Your task to perform on an android device: make emails show in primary in the gmail app Image 0: 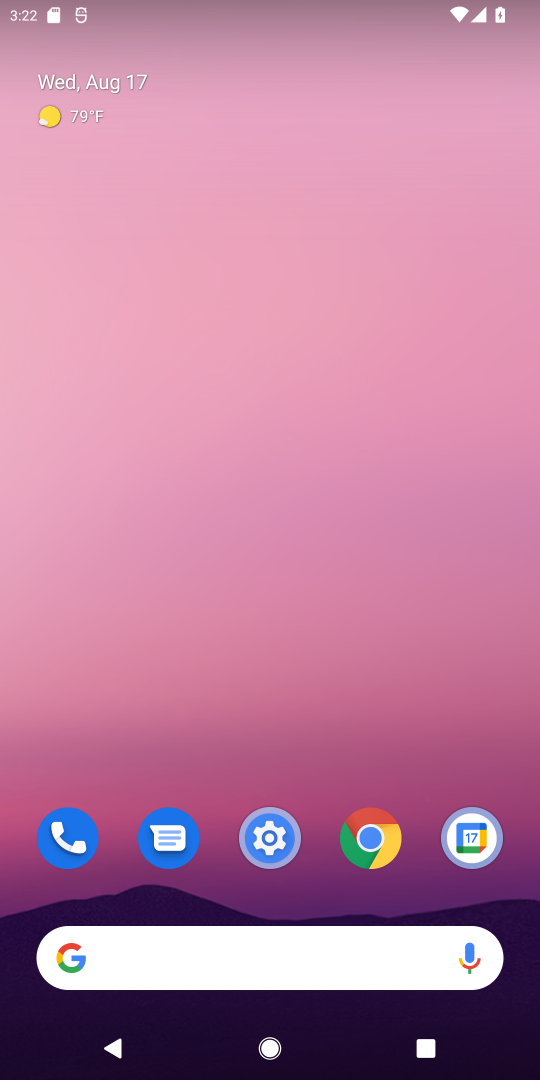
Step 0: drag from (231, 916) to (238, 435)
Your task to perform on an android device: make emails show in primary in the gmail app Image 1: 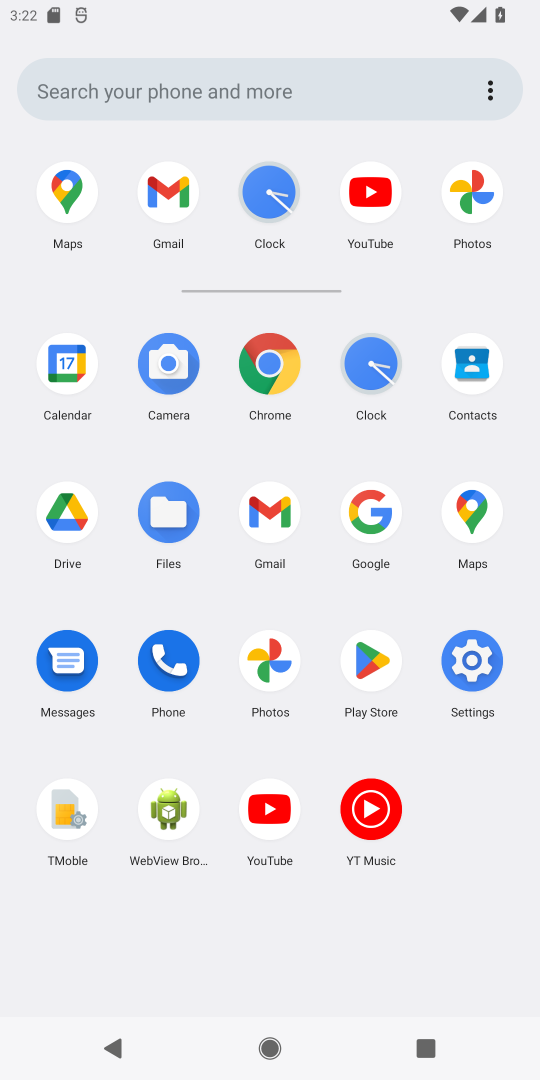
Step 1: click (182, 204)
Your task to perform on an android device: make emails show in primary in the gmail app Image 2: 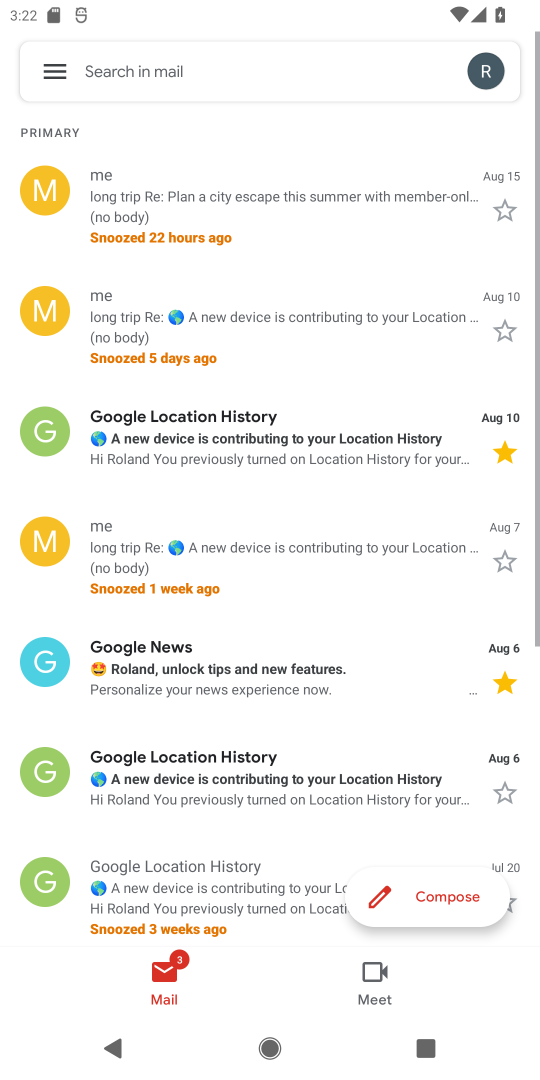
Step 2: click (45, 70)
Your task to perform on an android device: make emails show in primary in the gmail app Image 3: 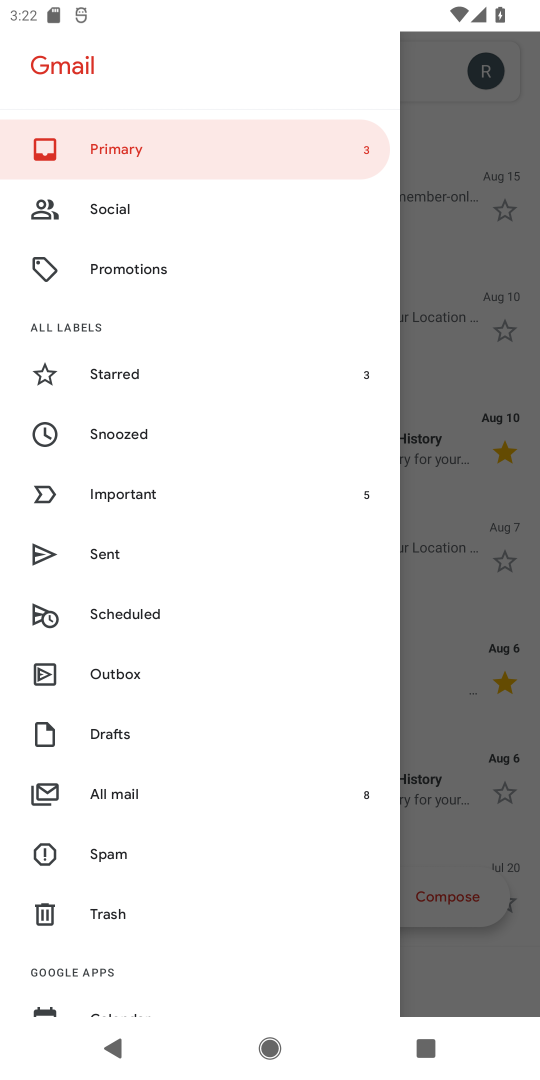
Step 3: drag from (122, 925) to (122, 230)
Your task to perform on an android device: make emails show in primary in the gmail app Image 4: 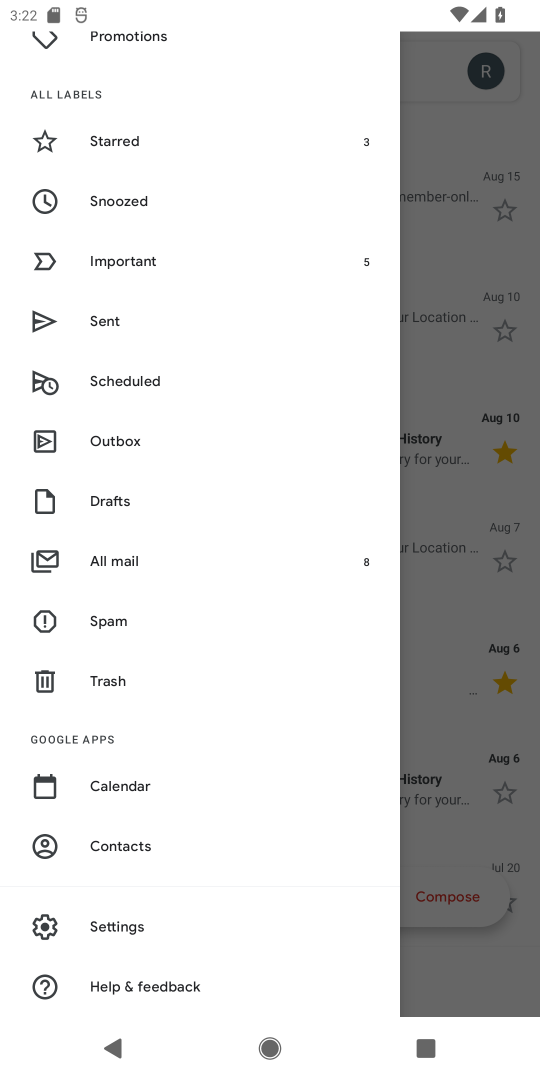
Step 4: click (85, 921)
Your task to perform on an android device: make emails show in primary in the gmail app Image 5: 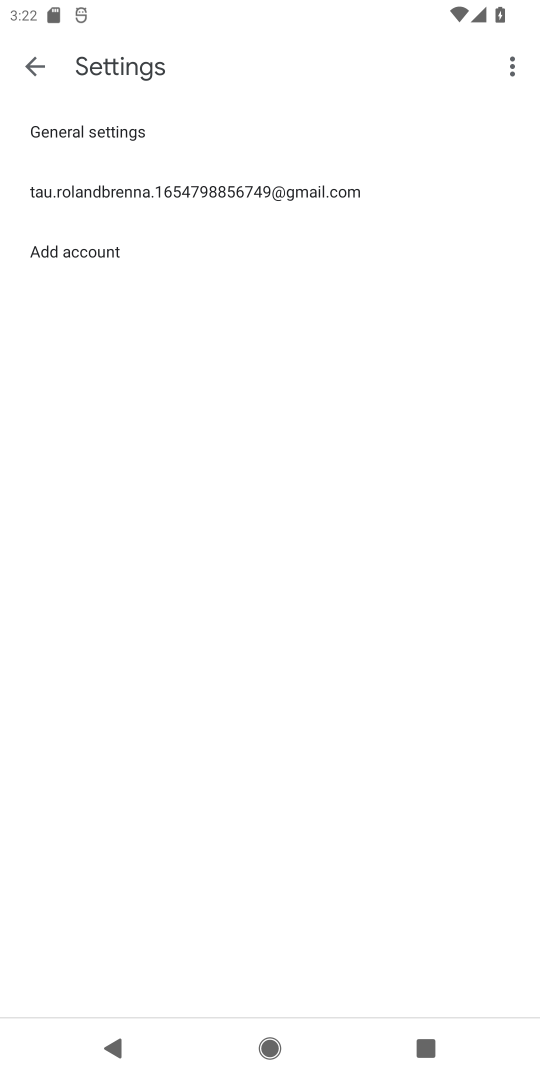
Step 5: click (115, 188)
Your task to perform on an android device: make emails show in primary in the gmail app Image 6: 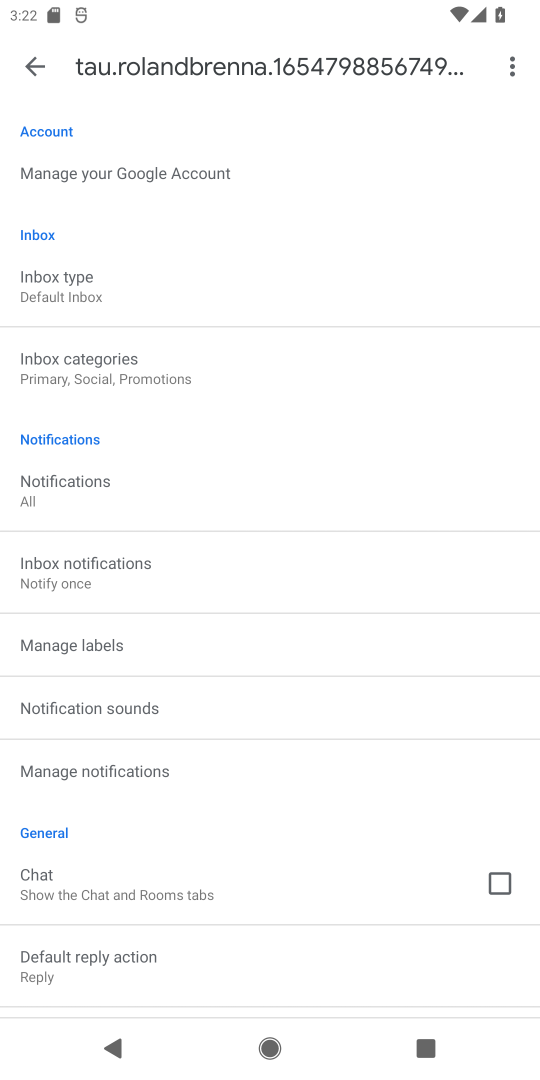
Step 6: click (37, 289)
Your task to perform on an android device: make emails show in primary in the gmail app Image 7: 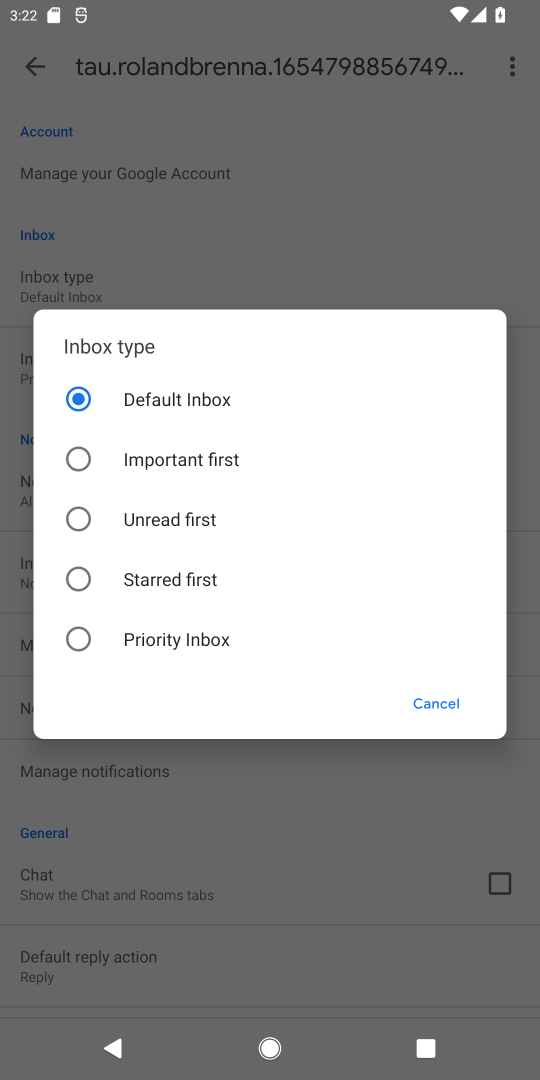
Step 7: click (98, 408)
Your task to perform on an android device: make emails show in primary in the gmail app Image 8: 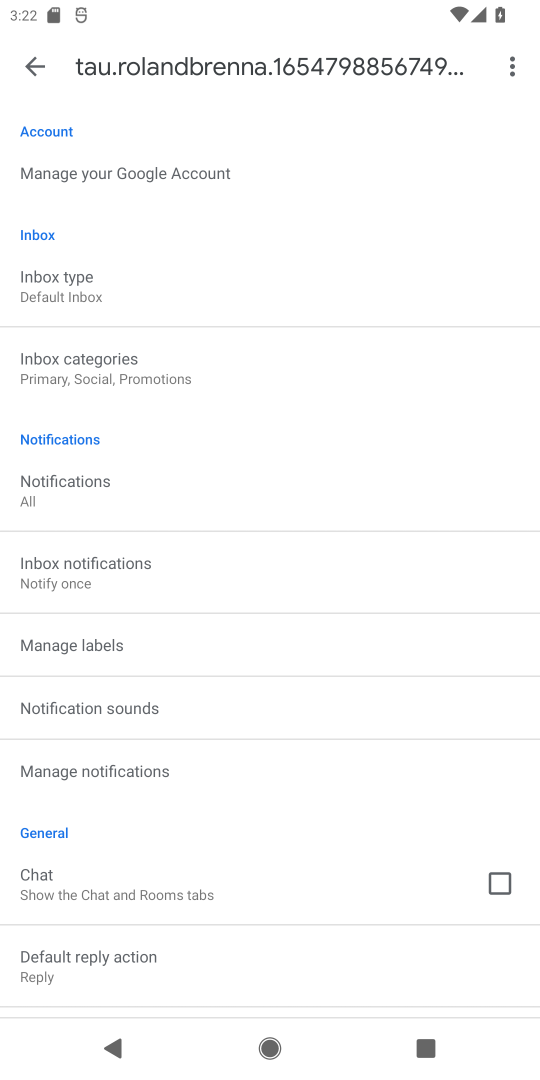
Step 8: click (84, 374)
Your task to perform on an android device: make emails show in primary in the gmail app Image 9: 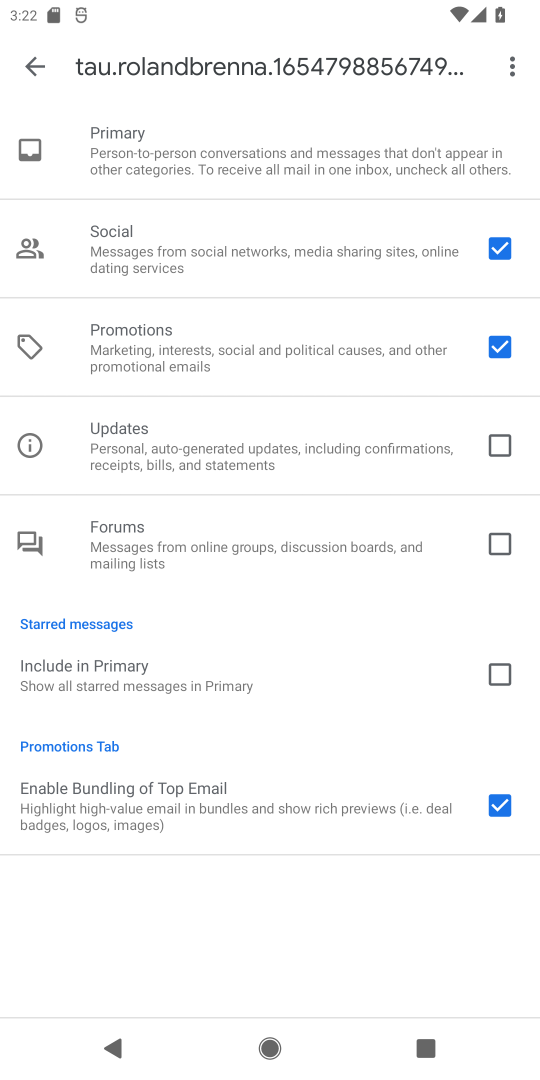
Step 9: click (498, 351)
Your task to perform on an android device: make emails show in primary in the gmail app Image 10: 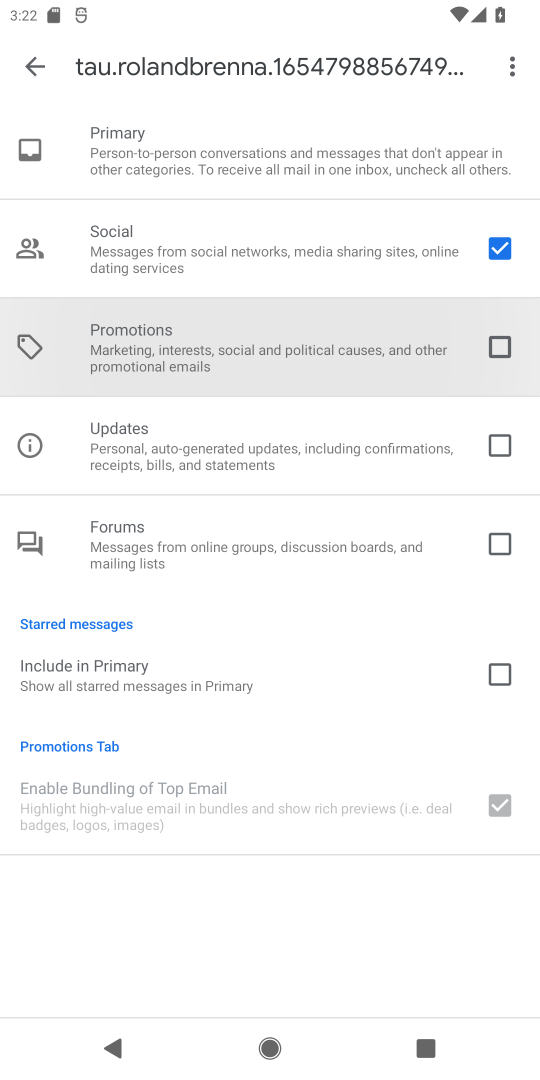
Step 10: click (499, 241)
Your task to perform on an android device: make emails show in primary in the gmail app Image 11: 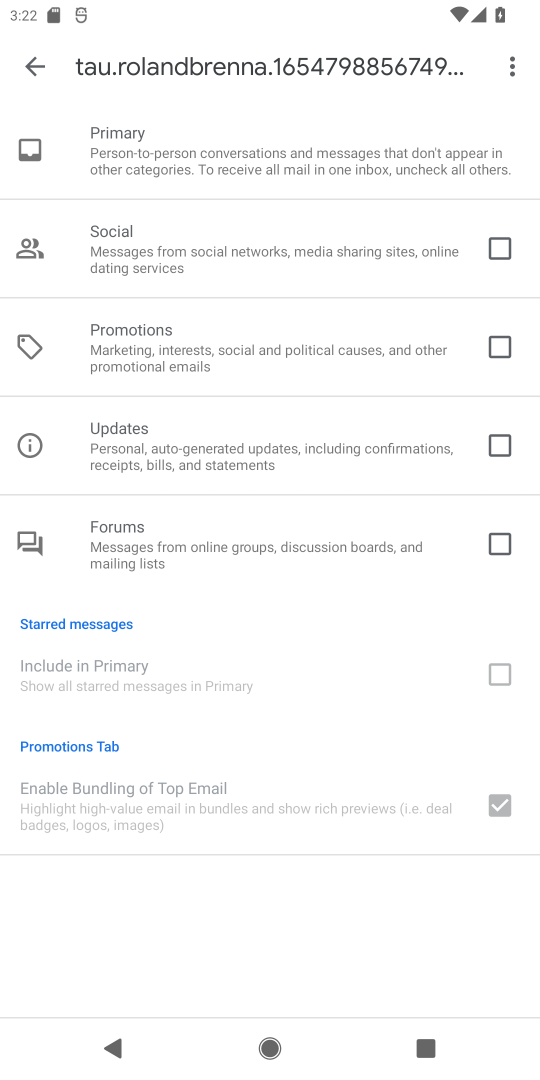
Step 11: click (29, 66)
Your task to perform on an android device: make emails show in primary in the gmail app Image 12: 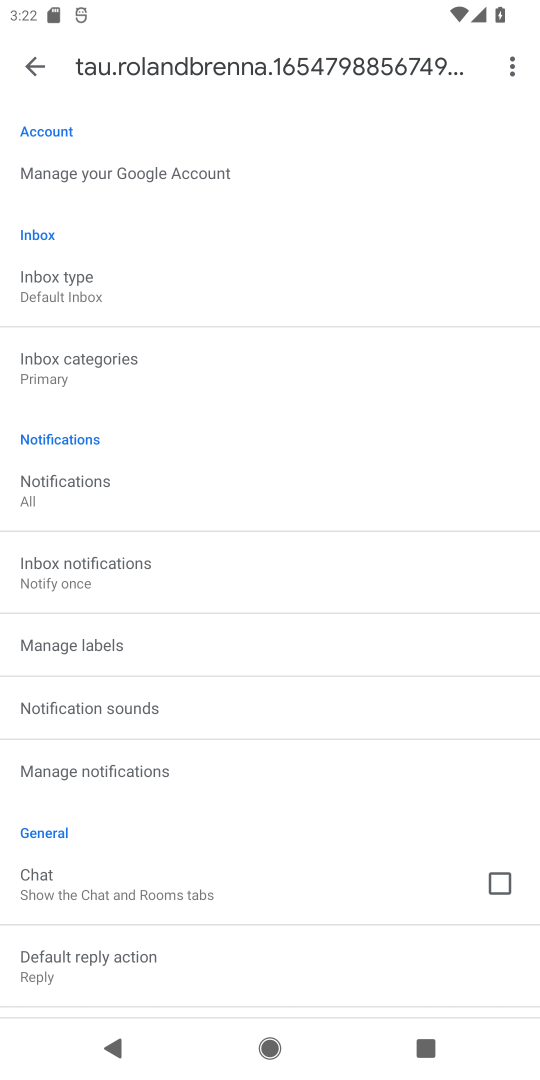
Step 12: task complete